Your task to perform on an android device: install app "LinkedIn" Image 0: 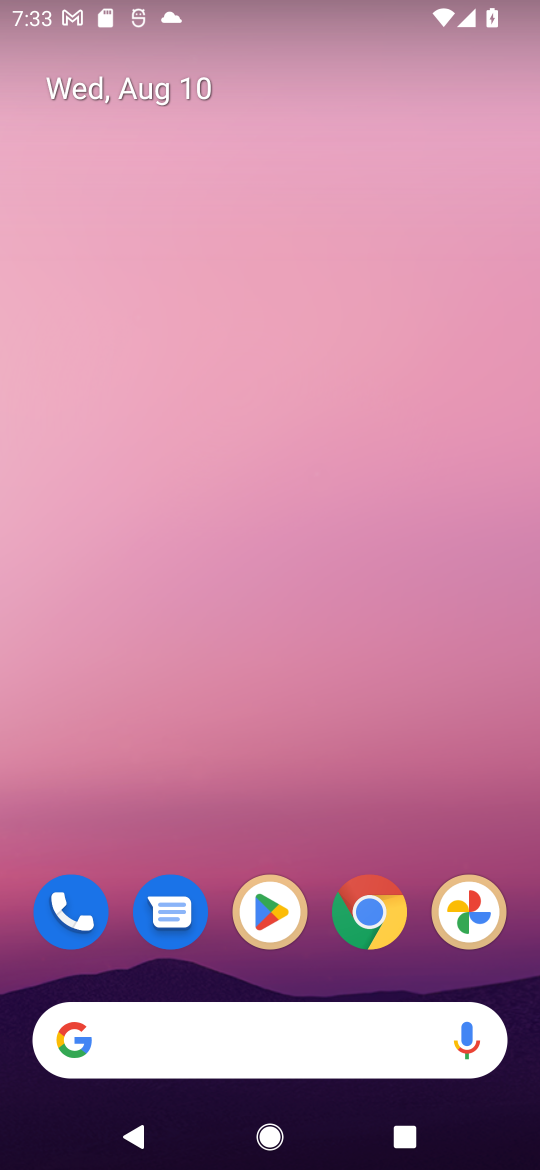
Step 0: drag from (513, 983) to (349, 133)
Your task to perform on an android device: install app "LinkedIn" Image 1: 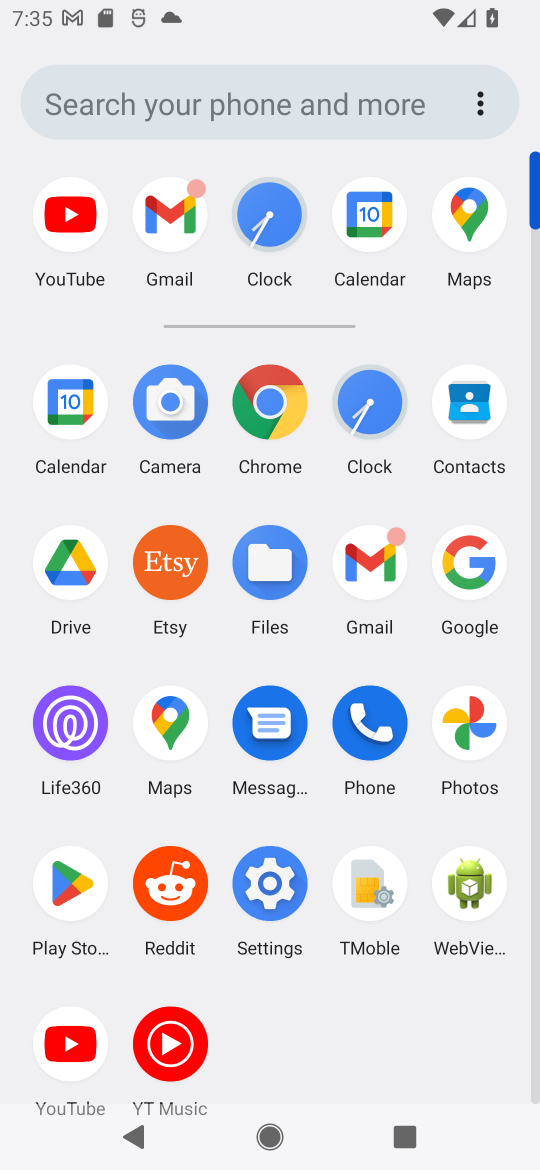
Step 1: click (68, 875)
Your task to perform on an android device: install app "LinkedIn" Image 2: 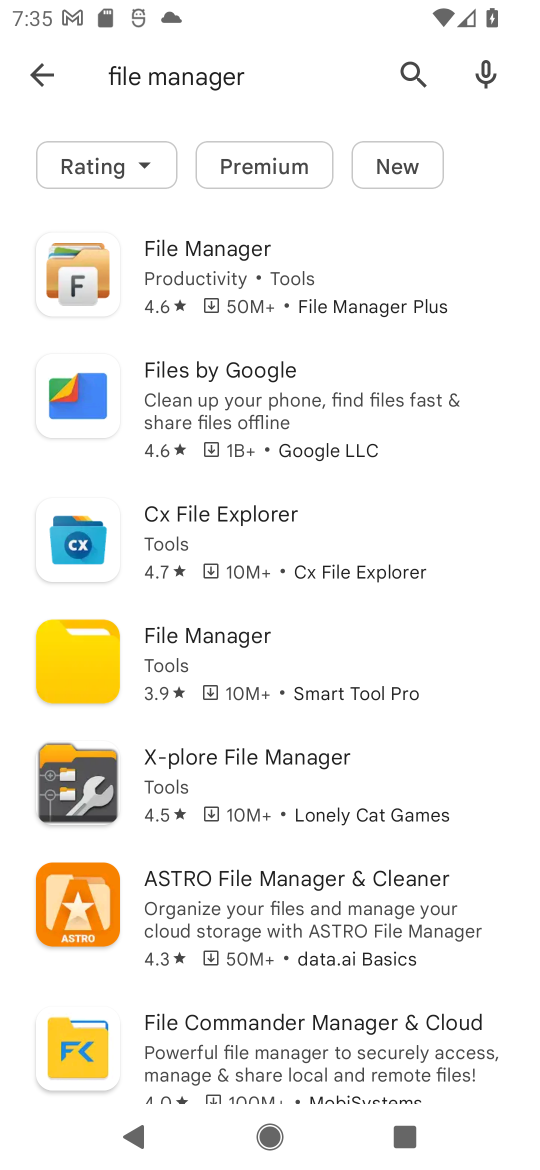
Step 2: press back button
Your task to perform on an android device: install app "LinkedIn" Image 3: 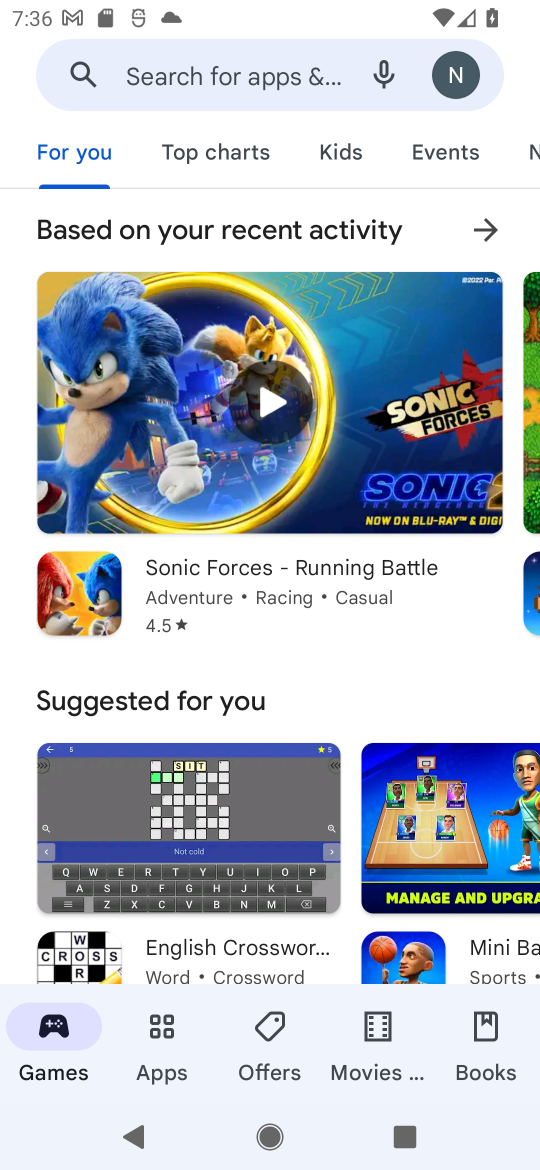
Step 3: click (151, 69)
Your task to perform on an android device: install app "LinkedIn" Image 4: 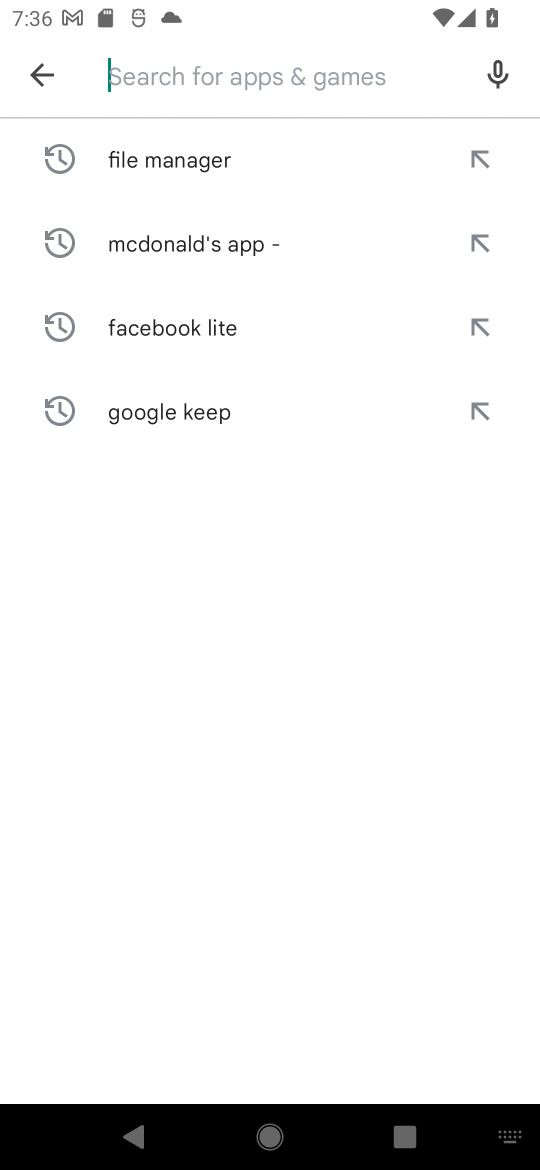
Step 4: type "LinkedIn"
Your task to perform on an android device: install app "LinkedIn" Image 5: 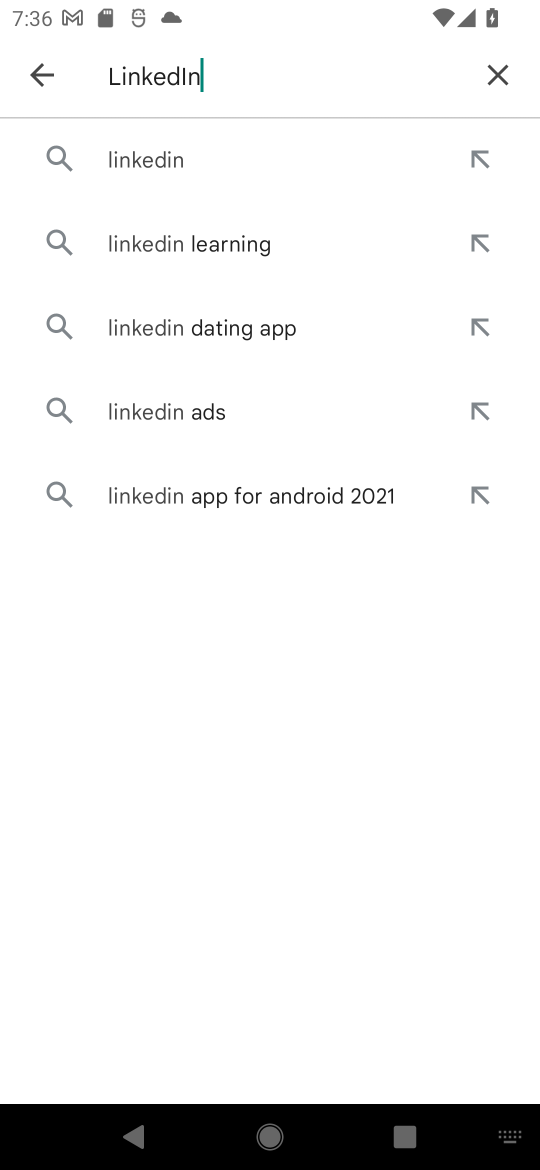
Step 5: click (193, 164)
Your task to perform on an android device: install app "LinkedIn" Image 6: 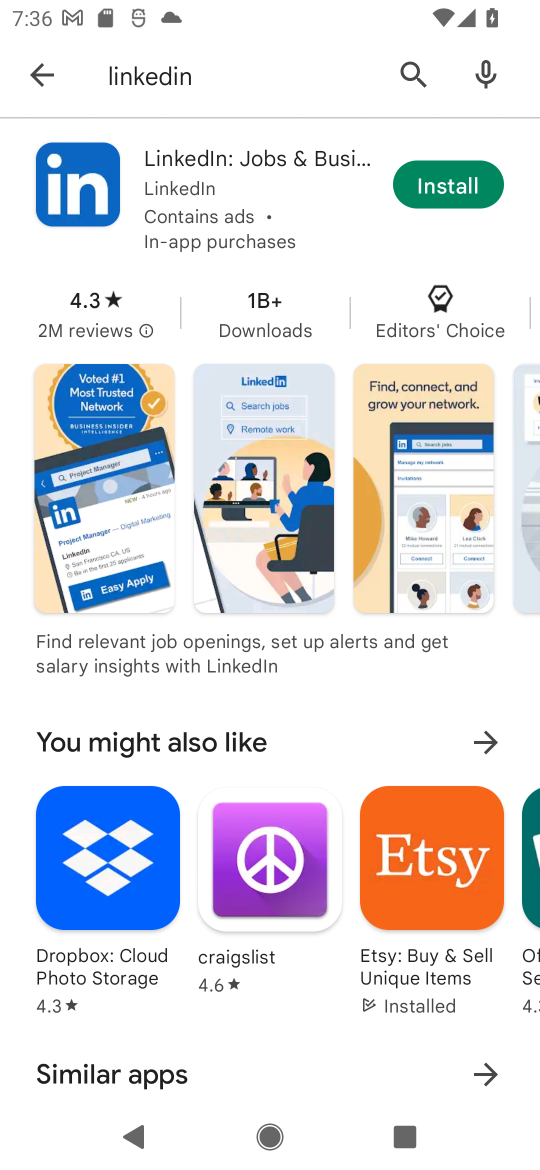
Step 6: click (461, 180)
Your task to perform on an android device: install app "LinkedIn" Image 7: 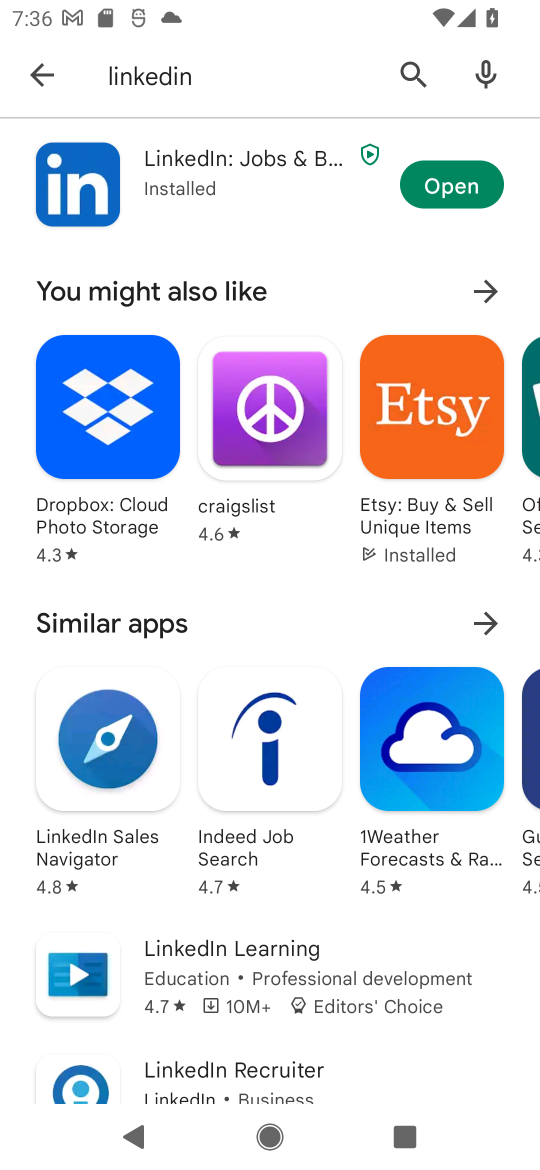
Step 7: task complete